Your task to perform on an android device: Do I have any events today? Image 0: 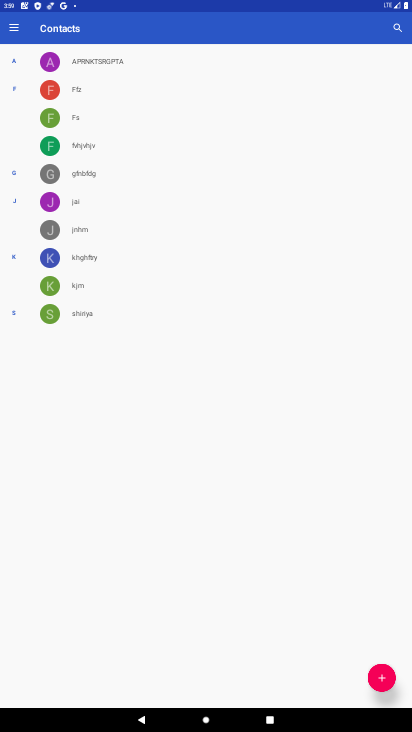
Step 0: press home button
Your task to perform on an android device: Do I have any events today? Image 1: 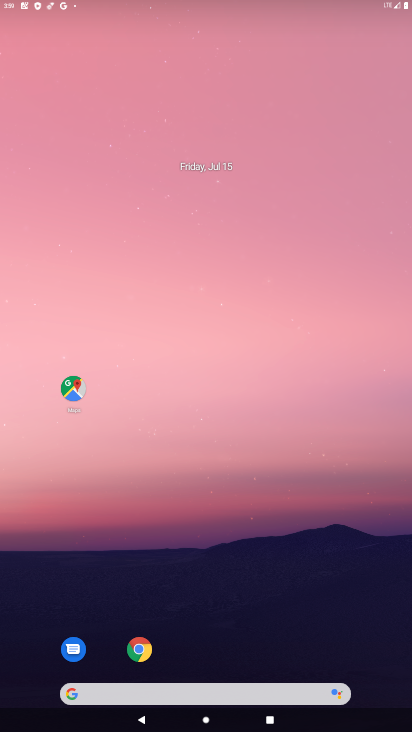
Step 1: drag from (192, 643) to (195, 185)
Your task to perform on an android device: Do I have any events today? Image 2: 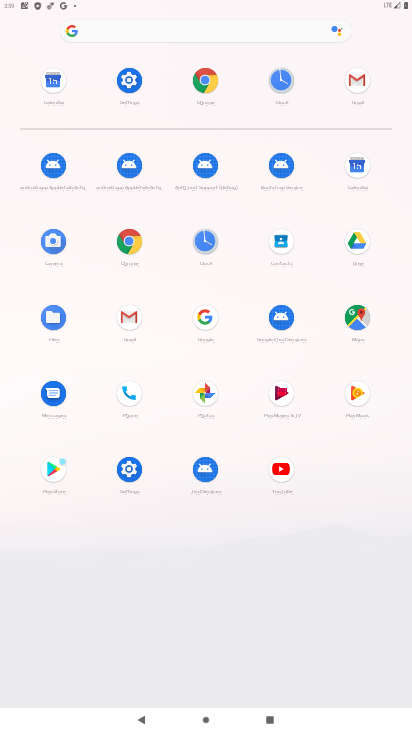
Step 2: click (358, 178)
Your task to perform on an android device: Do I have any events today? Image 3: 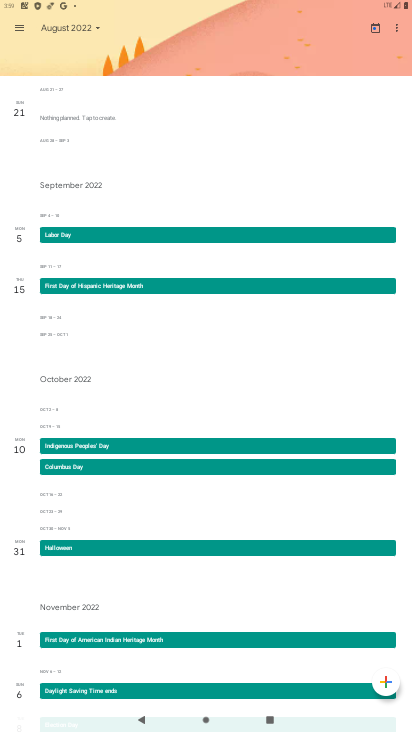
Step 3: click (92, 29)
Your task to perform on an android device: Do I have any events today? Image 4: 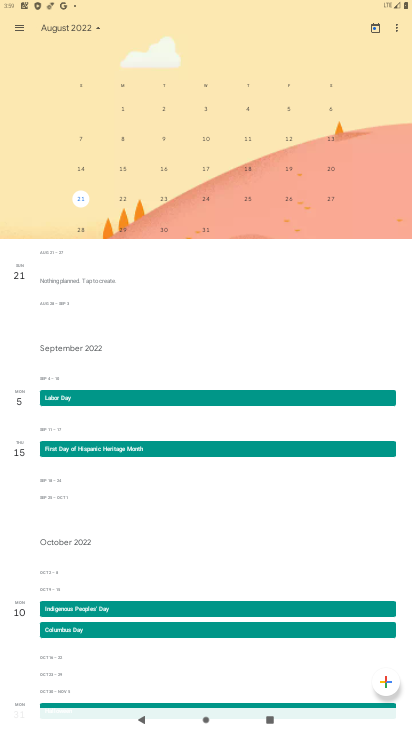
Step 4: task complete